Your task to perform on an android device: What is the capital of Mexico? Image 0: 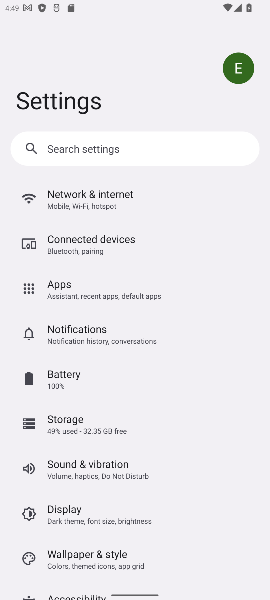
Step 0: press home button
Your task to perform on an android device: What is the capital of Mexico? Image 1: 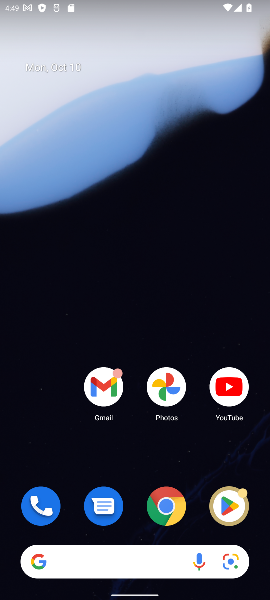
Step 1: drag from (134, 554) to (197, 205)
Your task to perform on an android device: What is the capital of Mexico? Image 2: 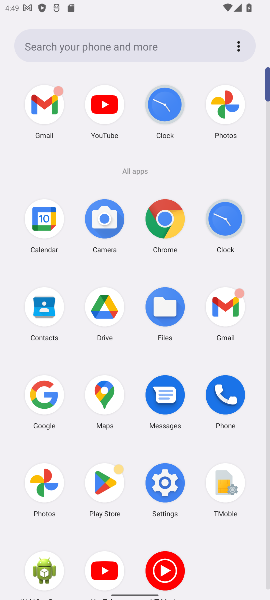
Step 2: click (46, 391)
Your task to perform on an android device: What is the capital of Mexico? Image 3: 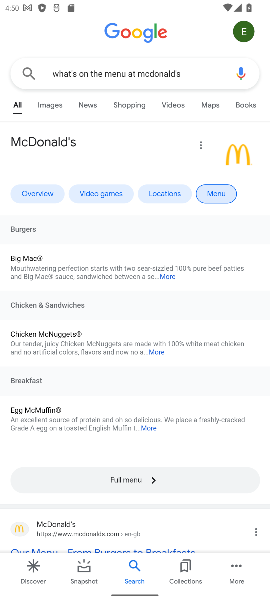
Step 3: click (189, 74)
Your task to perform on an android device: What is the capital of Mexico? Image 4: 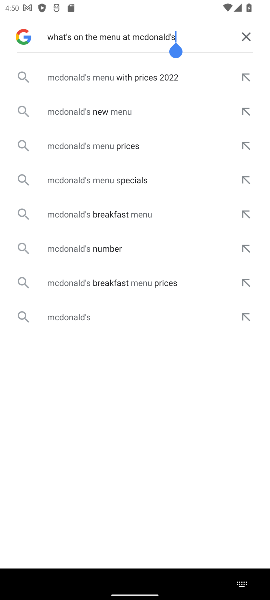
Step 4: click (246, 41)
Your task to perform on an android device: What is the capital of Mexico? Image 5: 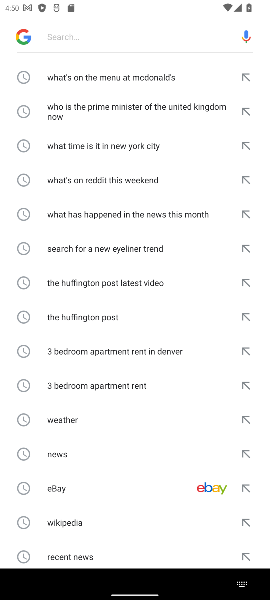
Step 5: type "What is the capital of Mexico?"
Your task to perform on an android device: What is the capital of Mexico? Image 6: 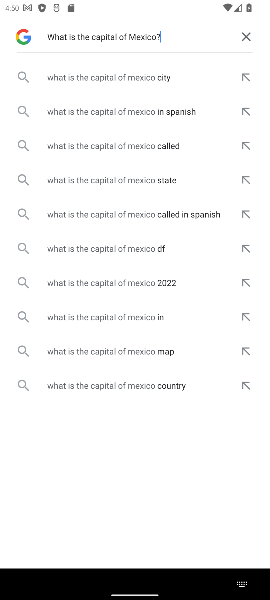
Step 6: click (75, 78)
Your task to perform on an android device: What is the capital of Mexico? Image 7: 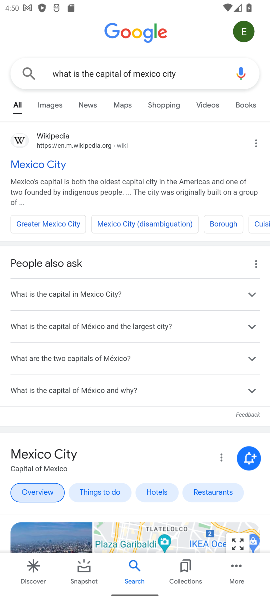
Step 7: task complete